Your task to perform on an android device: Open settings Image 0: 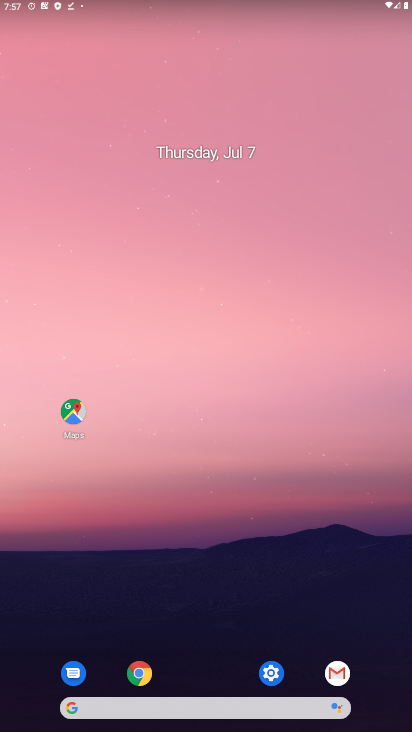
Step 0: click (270, 672)
Your task to perform on an android device: Open settings Image 1: 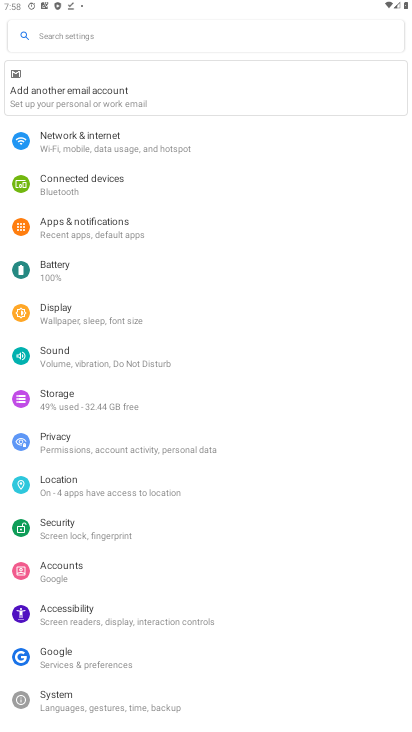
Step 1: task complete